Your task to perform on an android device: Open calendar and show me the third week of next month Image 0: 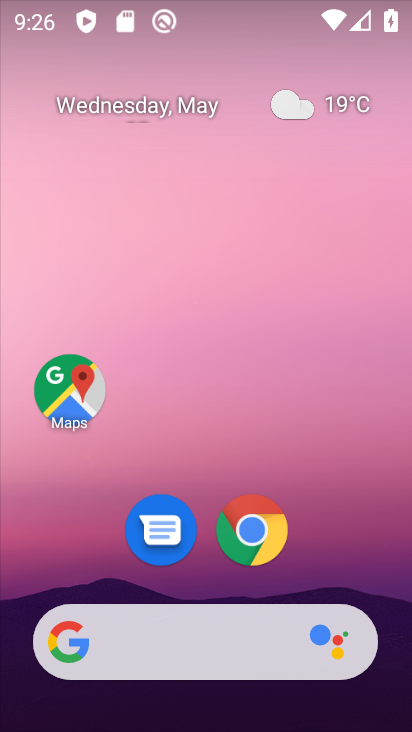
Step 0: drag from (292, 544) to (180, 6)
Your task to perform on an android device: Open calendar and show me the third week of next month Image 1: 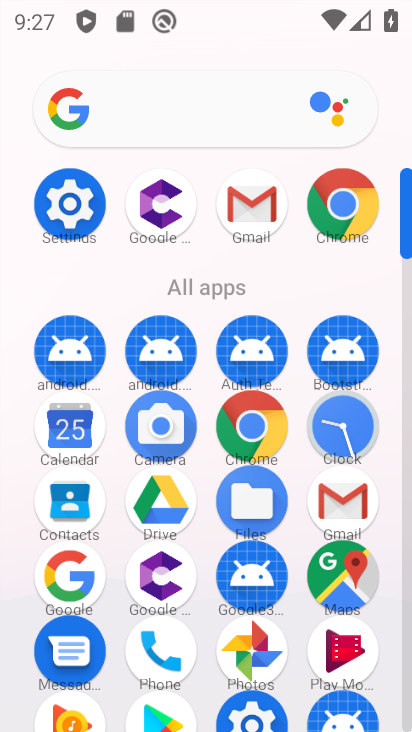
Step 1: click (58, 431)
Your task to perform on an android device: Open calendar and show me the third week of next month Image 2: 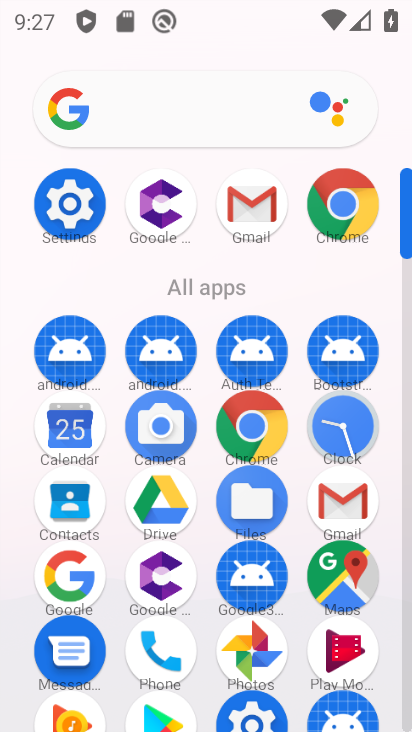
Step 2: click (64, 426)
Your task to perform on an android device: Open calendar and show me the third week of next month Image 3: 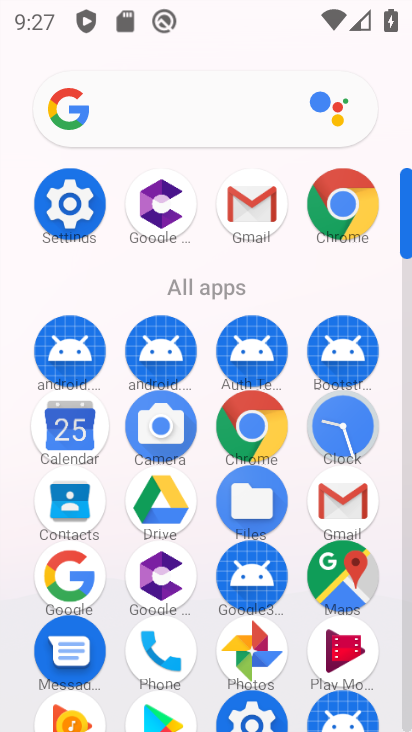
Step 3: click (64, 426)
Your task to perform on an android device: Open calendar and show me the third week of next month Image 4: 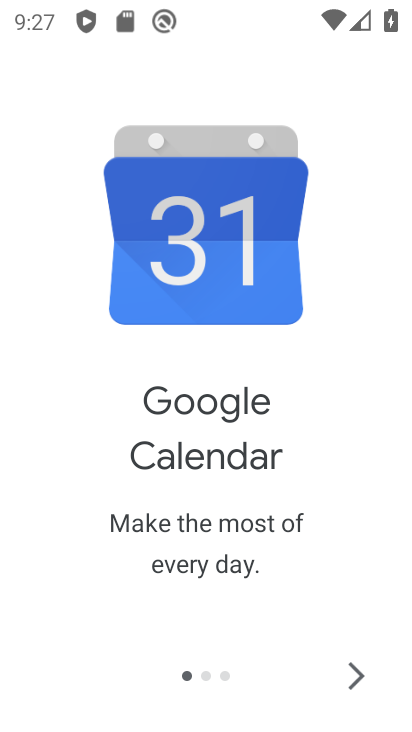
Step 4: click (340, 666)
Your task to perform on an android device: Open calendar and show me the third week of next month Image 5: 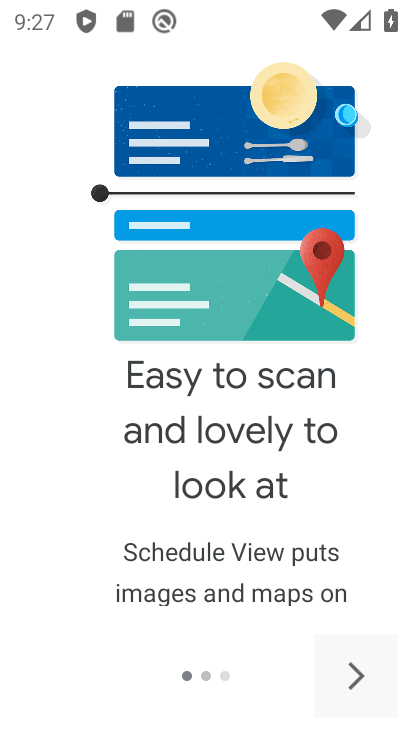
Step 5: click (363, 672)
Your task to perform on an android device: Open calendar and show me the third week of next month Image 6: 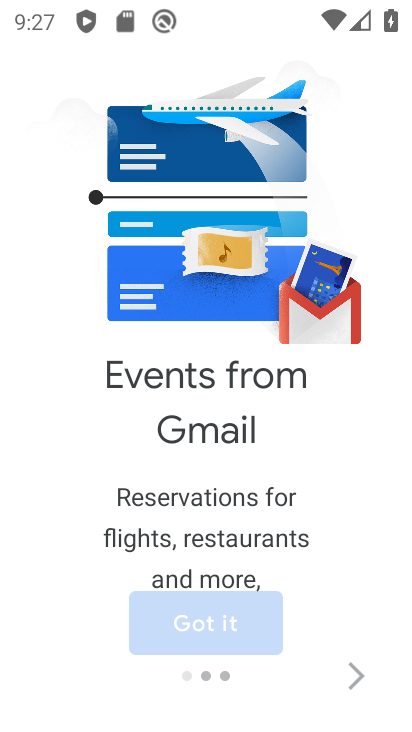
Step 6: click (359, 671)
Your task to perform on an android device: Open calendar and show me the third week of next month Image 7: 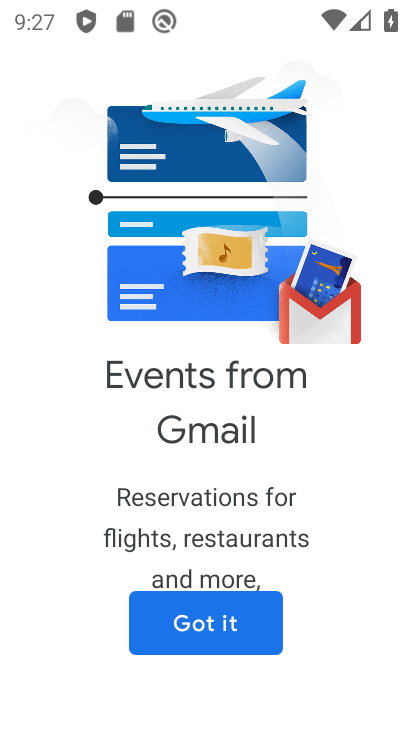
Step 7: click (359, 671)
Your task to perform on an android device: Open calendar and show me the third week of next month Image 8: 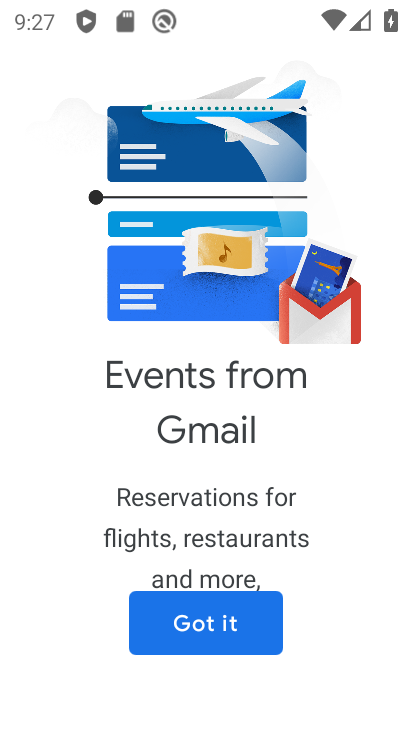
Step 8: click (359, 671)
Your task to perform on an android device: Open calendar and show me the third week of next month Image 9: 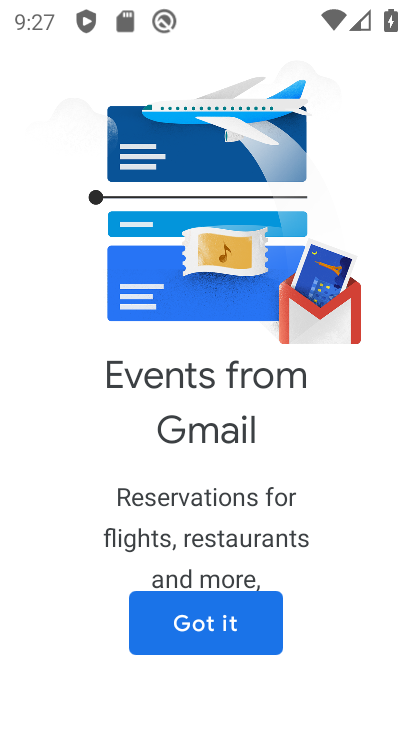
Step 9: click (359, 671)
Your task to perform on an android device: Open calendar and show me the third week of next month Image 10: 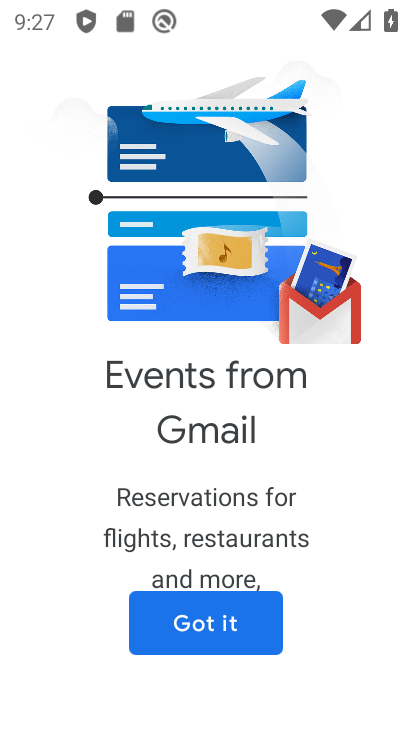
Step 10: click (212, 626)
Your task to perform on an android device: Open calendar and show me the third week of next month Image 11: 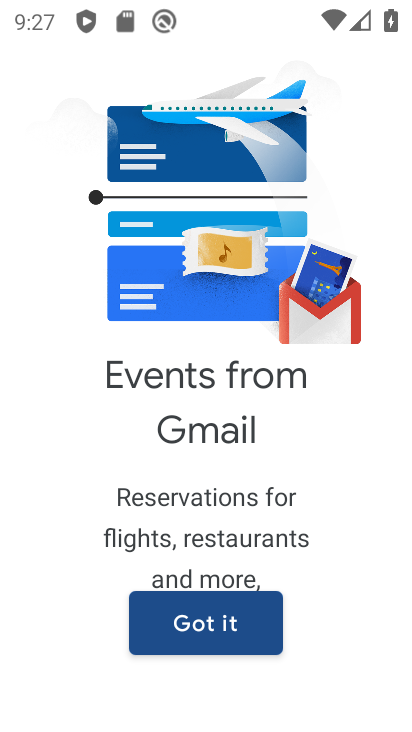
Step 11: click (212, 626)
Your task to perform on an android device: Open calendar and show me the third week of next month Image 12: 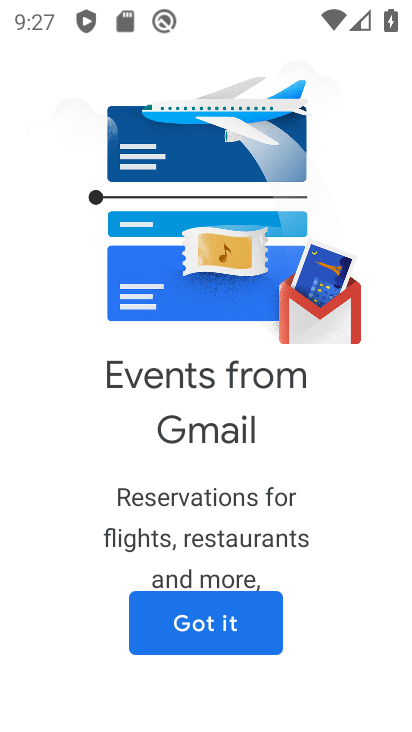
Step 12: click (214, 624)
Your task to perform on an android device: Open calendar and show me the third week of next month Image 13: 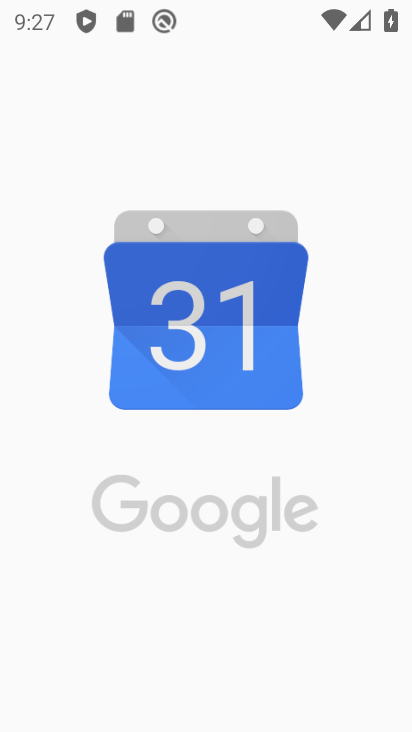
Step 13: click (212, 622)
Your task to perform on an android device: Open calendar and show me the third week of next month Image 14: 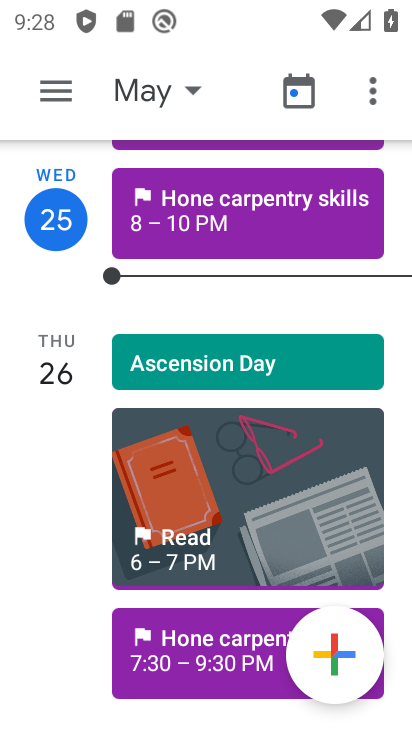
Step 14: press back button
Your task to perform on an android device: Open calendar and show me the third week of next month Image 15: 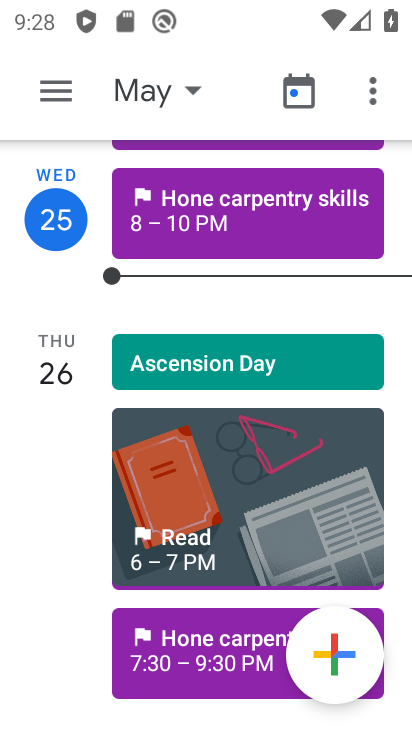
Step 15: press back button
Your task to perform on an android device: Open calendar and show me the third week of next month Image 16: 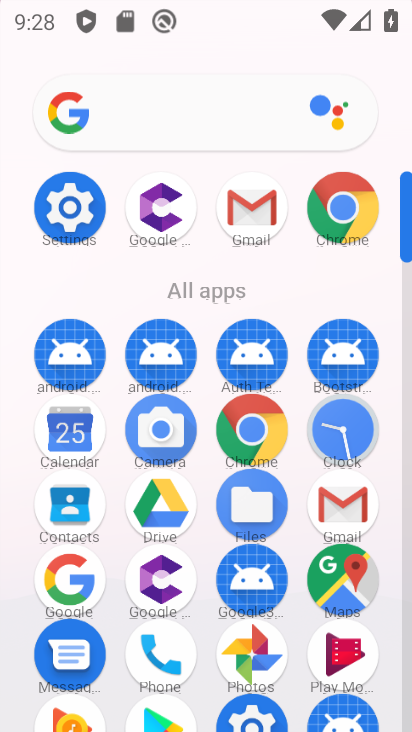
Step 16: press back button
Your task to perform on an android device: Open calendar and show me the third week of next month Image 17: 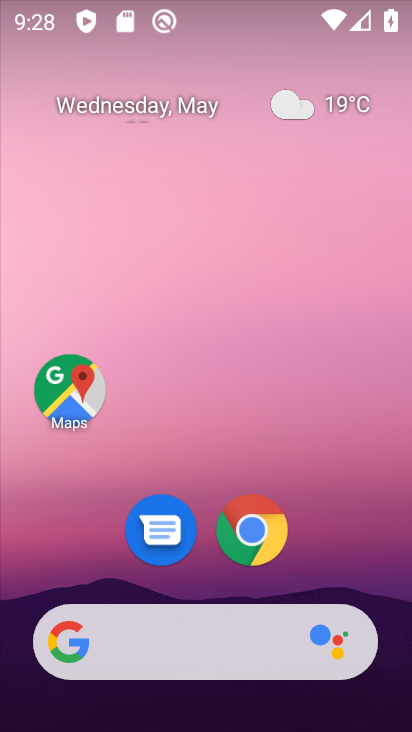
Step 17: drag from (220, 491) to (144, 100)
Your task to perform on an android device: Open calendar and show me the third week of next month Image 18: 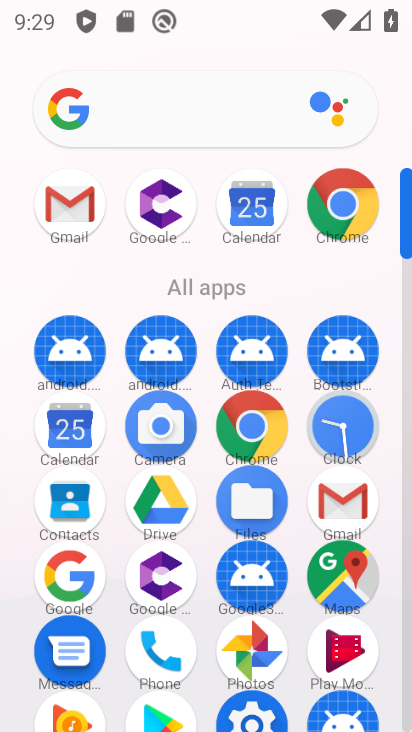
Step 18: click (66, 435)
Your task to perform on an android device: Open calendar and show me the third week of next month Image 19: 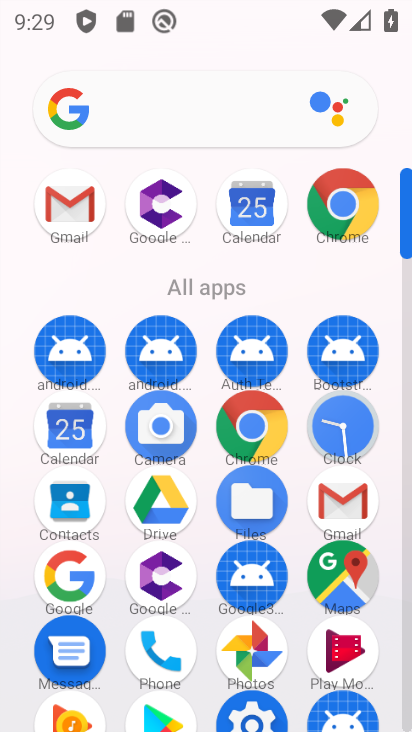
Step 19: click (67, 434)
Your task to perform on an android device: Open calendar and show me the third week of next month Image 20: 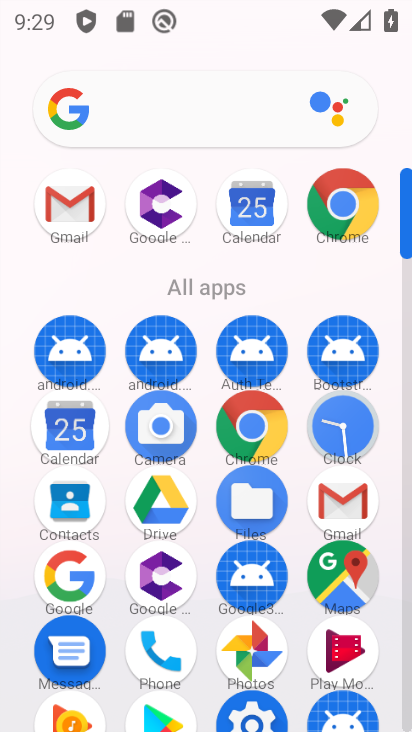
Step 20: click (69, 434)
Your task to perform on an android device: Open calendar and show me the third week of next month Image 21: 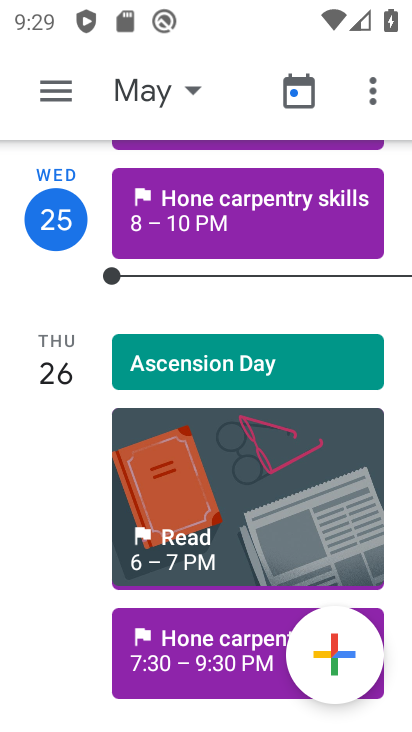
Step 21: press back button
Your task to perform on an android device: Open calendar and show me the third week of next month Image 22: 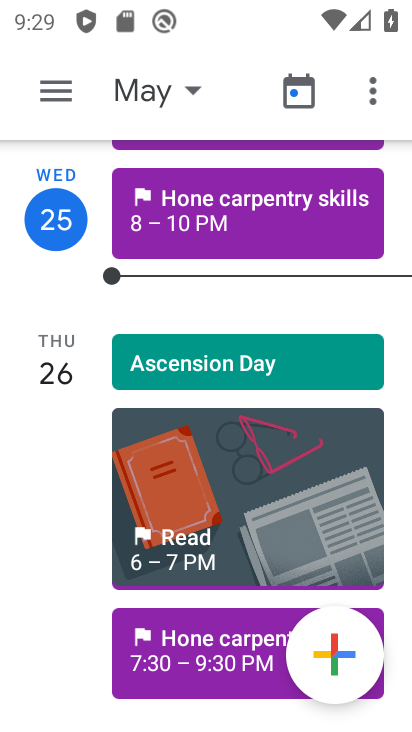
Step 22: press back button
Your task to perform on an android device: Open calendar and show me the third week of next month Image 23: 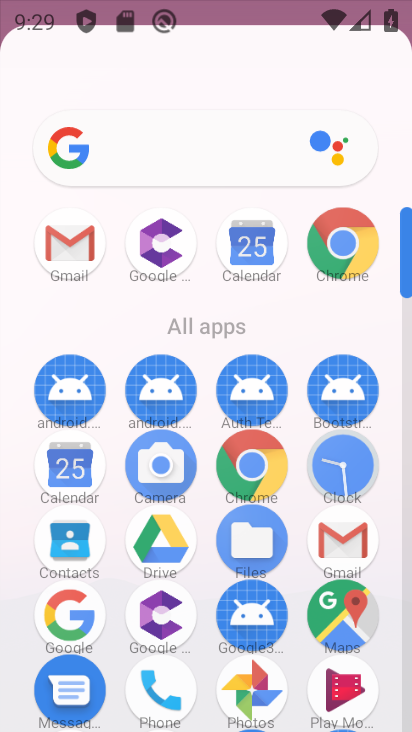
Step 23: press back button
Your task to perform on an android device: Open calendar and show me the third week of next month Image 24: 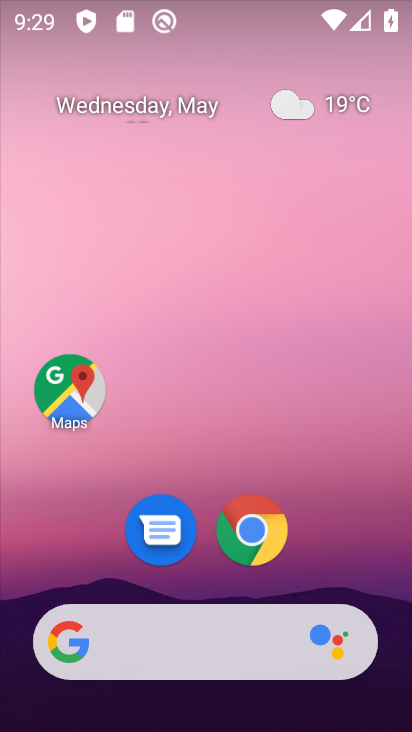
Step 24: drag from (237, 639) to (163, 102)
Your task to perform on an android device: Open calendar and show me the third week of next month Image 25: 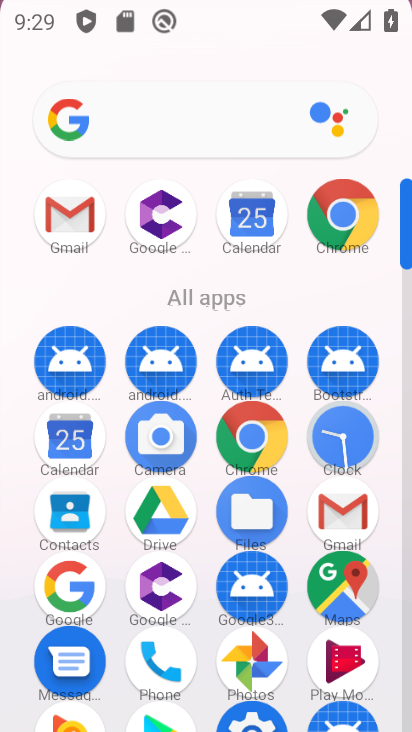
Step 25: drag from (210, 247) to (170, 11)
Your task to perform on an android device: Open calendar and show me the third week of next month Image 26: 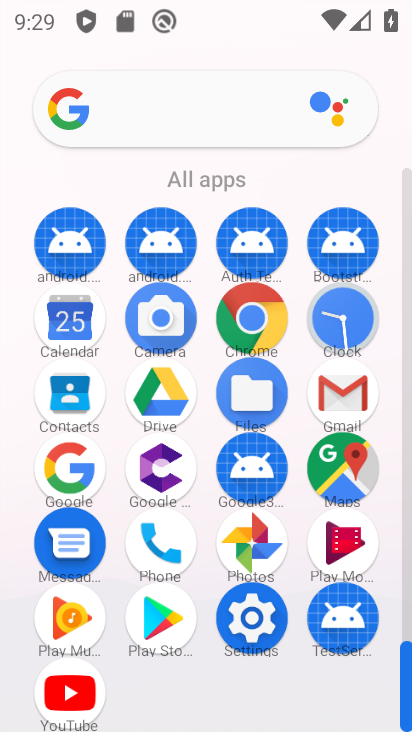
Step 26: drag from (269, 500) to (194, 21)
Your task to perform on an android device: Open calendar and show me the third week of next month Image 27: 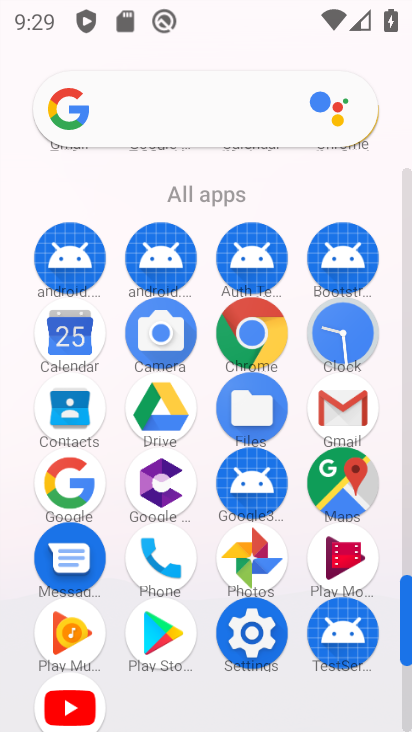
Step 27: click (66, 338)
Your task to perform on an android device: Open calendar and show me the third week of next month Image 28: 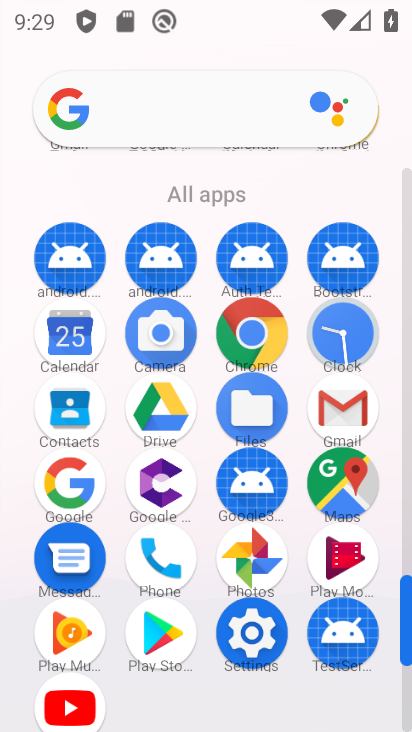
Step 28: click (66, 338)
Your task to perform on an android device: Open calendar and show me the third week of next month Image 29: 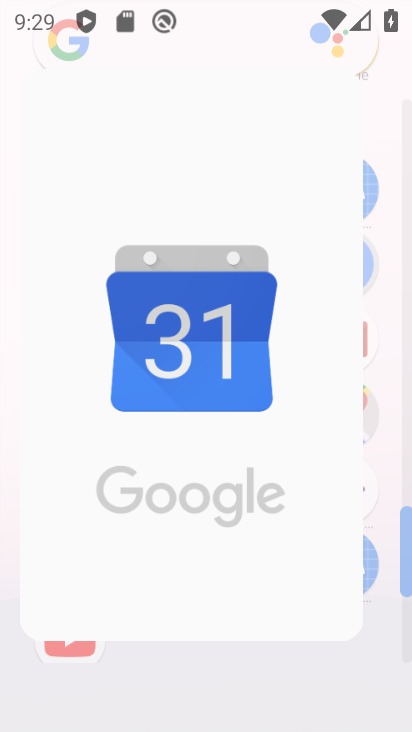
Step 29: click (67, 341)
Your task to perform on an android device: Open calendar and show me the third week of next month Image 30: 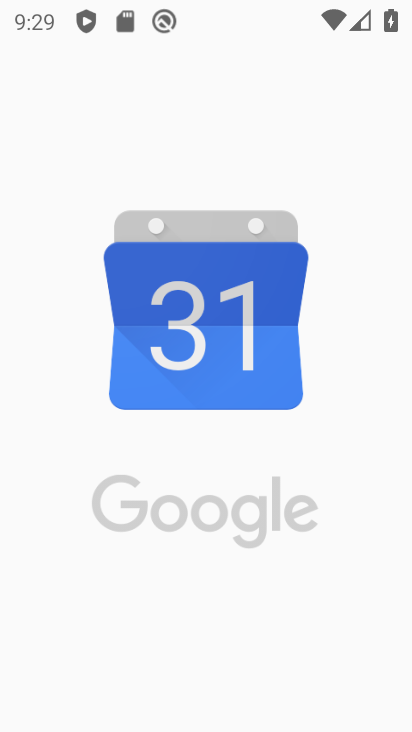
Step 30: click (68, 347)
Your task to perform on an android device: Open calendar and show me the third week of next month Image 31: 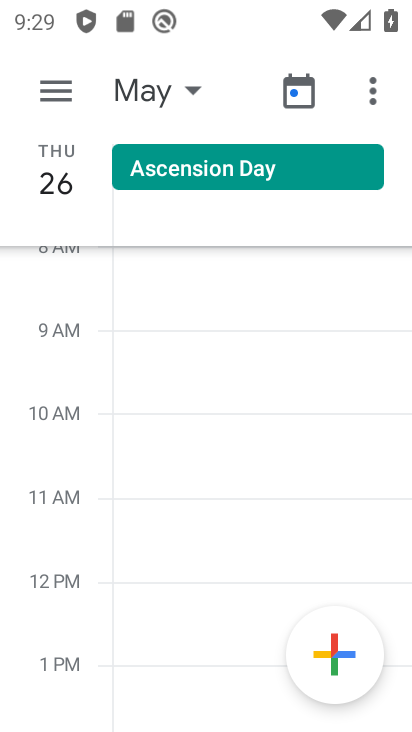
Step 31: press back button
Your task to perform on an android device: Open calendar and show me the third week of next month Image 32: 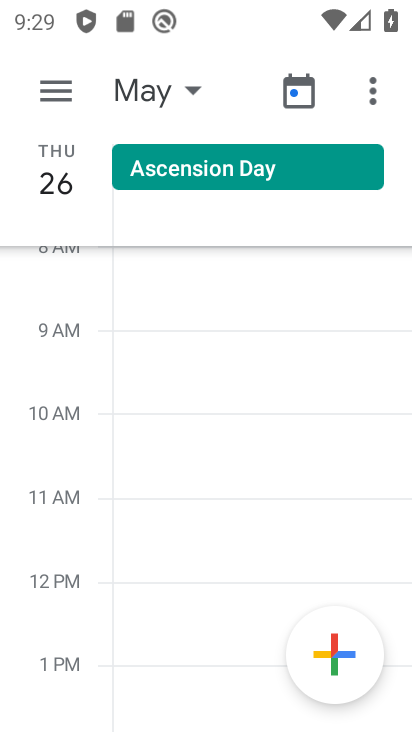
Step 32: press back button
Your task to perform on an android device: Open calendar and show me the third week of next month Image 33: 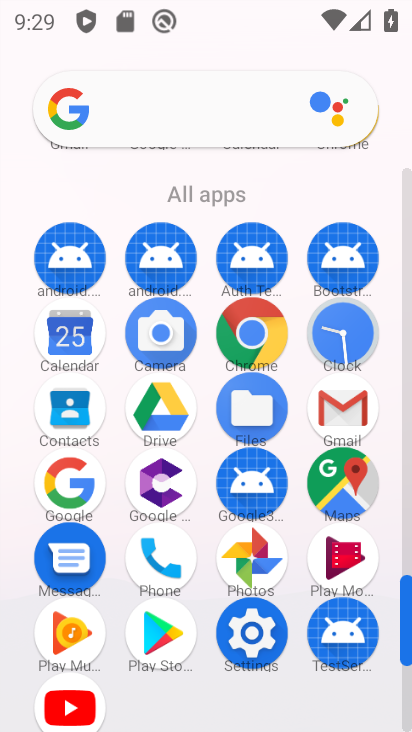
Step 33: press back button
Your task to perform on an android device: Open calendar and show me the third week of next month Image 34: 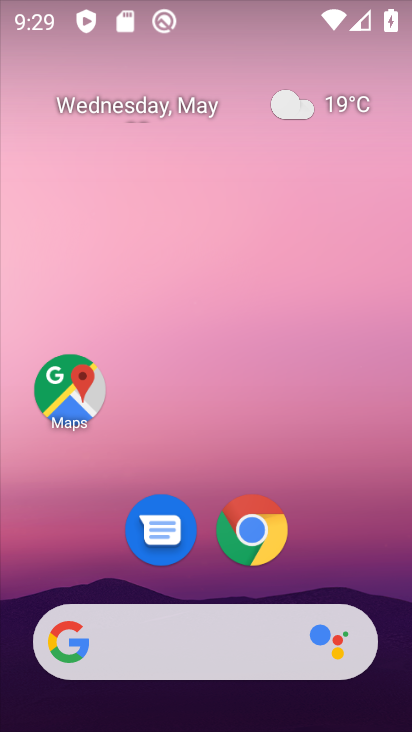
Step 34: drag from (313, 588) to (182, 9)
Your task to perform on an android device: Open calendar and show me the third week of next month Image 35: 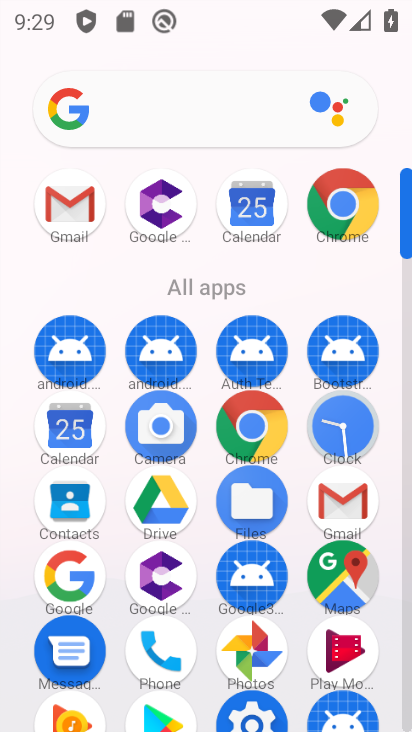
Step 35: drag from (278, 461) to (178, 2)
Your task to perform on an android device: Open calendar and show me the third week of next month Image 36: 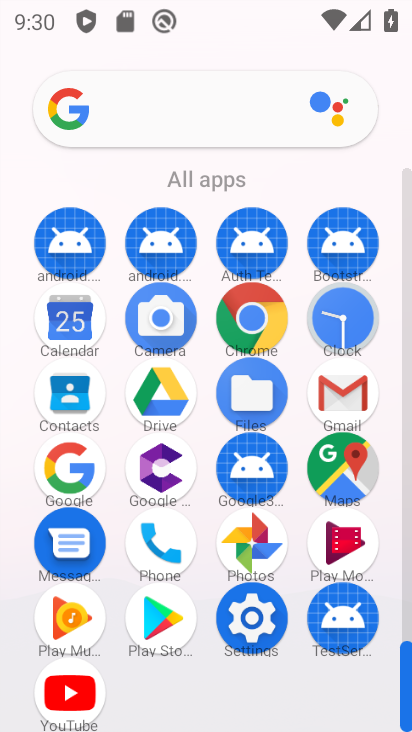
Step 36: click (69, 324)
Your task to perform on an android device: Open calendar and show me the third week of next month Image 37: 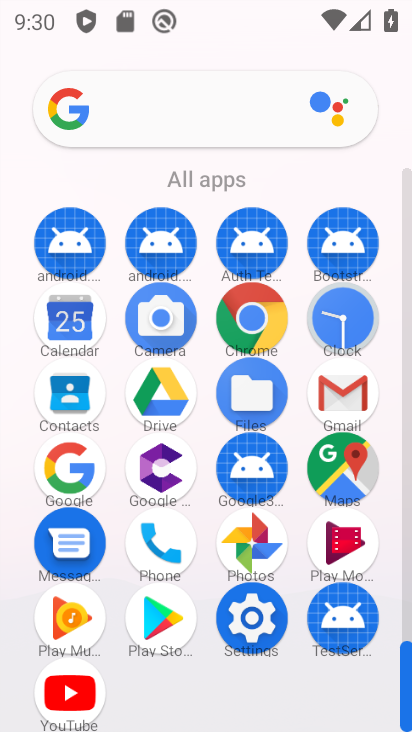
Step 37: click (69, 324)
Your task to perform on an android device: Open calendar and show me the third week of next month Image 38: 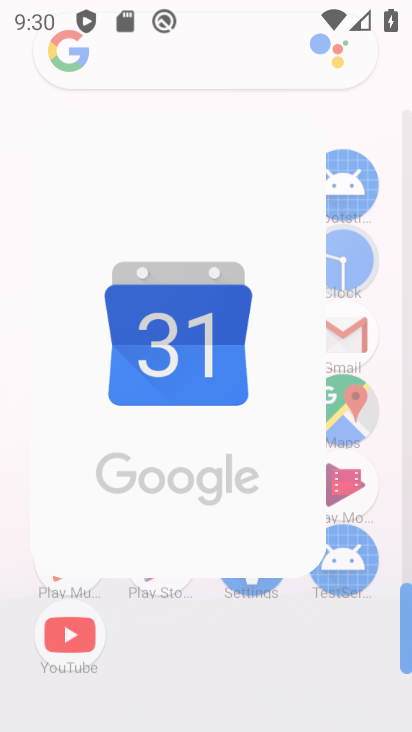
Step 38: click (61, 324)
Your task to perform on an android device: Open calendar and show me the third week of next month Image 39: 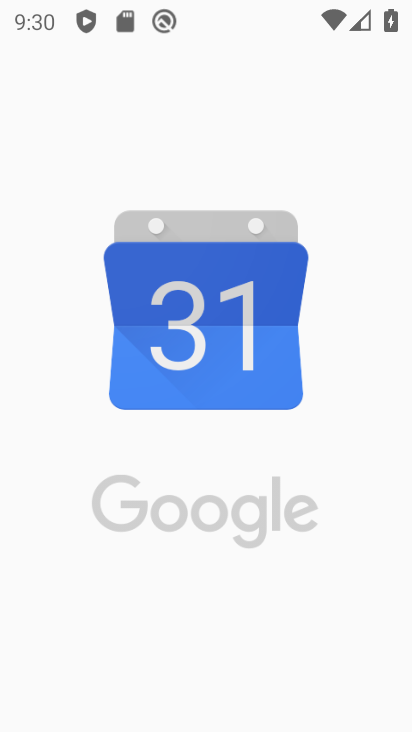
Step 39: click (61, 323)
Your task to perform on an android device: Open calendar and show me the third week of next month Image 40: 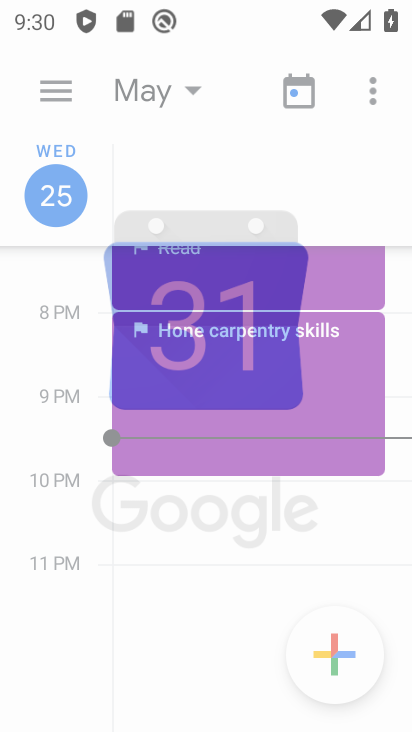
Step 40: click (65, 320)
Your task to perform on an android device: Open calendar and show me the third week of next month Image 41: 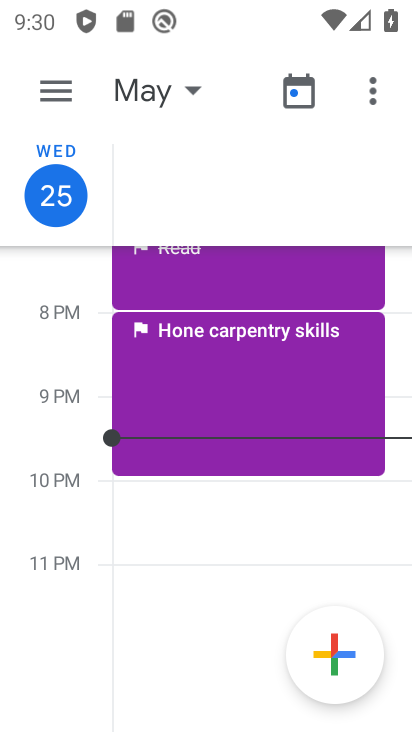
Step 41: click (72, 321)
Your task to perform on an android device: Open calendar and show me the third week of next month Image 42: 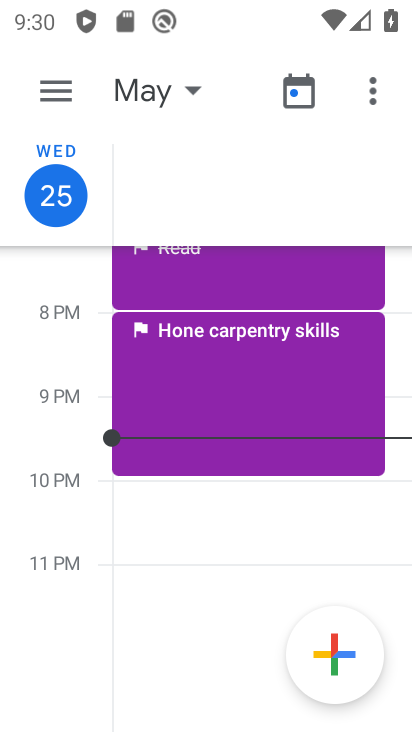
Step 42: click (193, 91)
Your task to perform on an android device: Open calendar and show me the third week of next month Image 43: 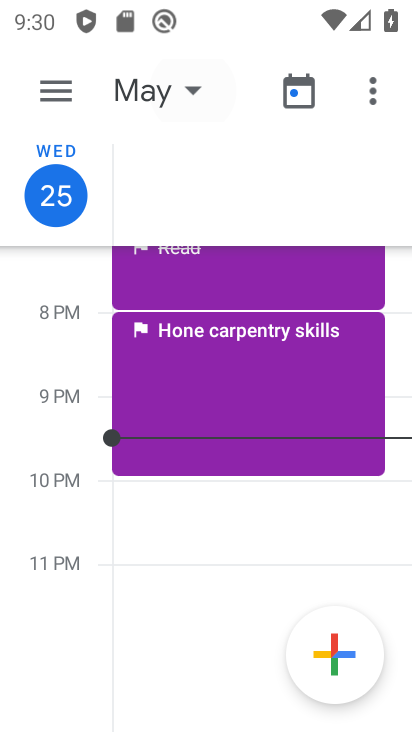
Step 43: click (193, 91)
Your task to perform on an android device: Open calendar and show me the third week of next month Image 44: 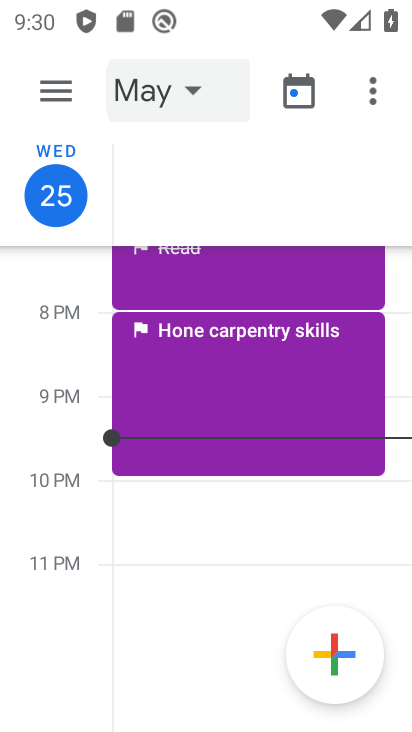
Step 44: click (193, 91)
Your task to perform on an android device: Open calendar and show me the third week of next month Image 45: 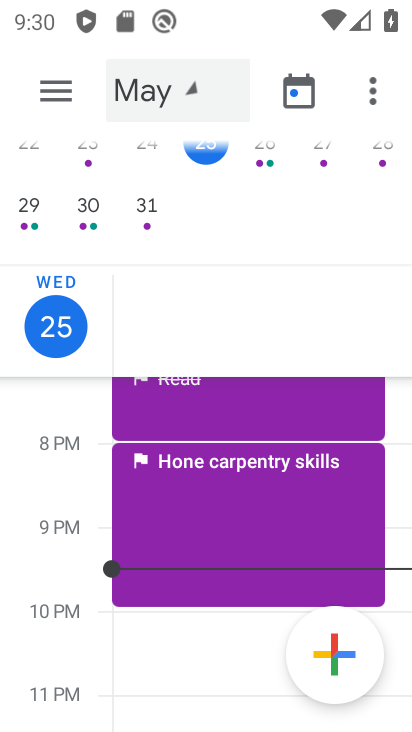
Step 45: click (193, 91)
Your task to perform on an android device: Open calendar and show me the third week of next month Image 46: 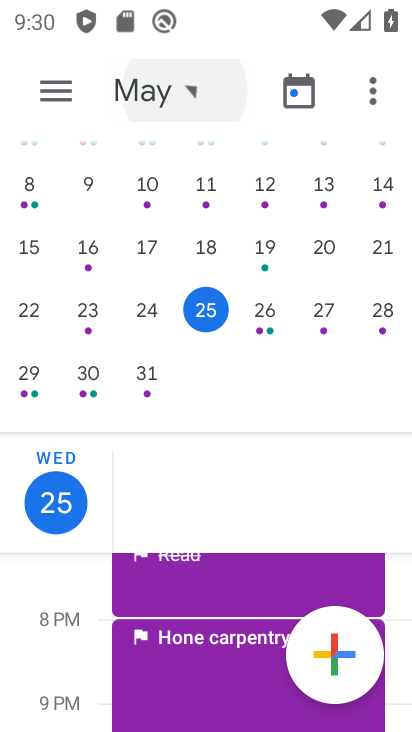
Step 46: click (193, 92)
Your task to perform on an android device: Open calendar and show me the third week of next month Image 47: 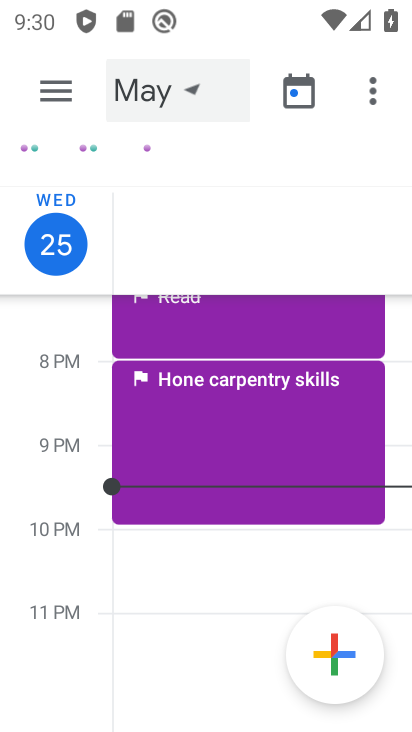
Step 47: click (193, 102)
Your task to perform on an android device: Open calendar and show me the third week of next month Image 48: 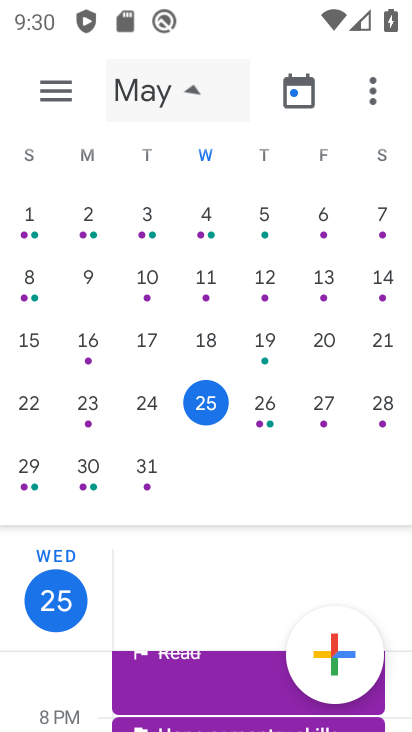
Step 48: click (193, 102)
Your task to perform on an android device: Open calendar and show me the third week of next month Image 49: 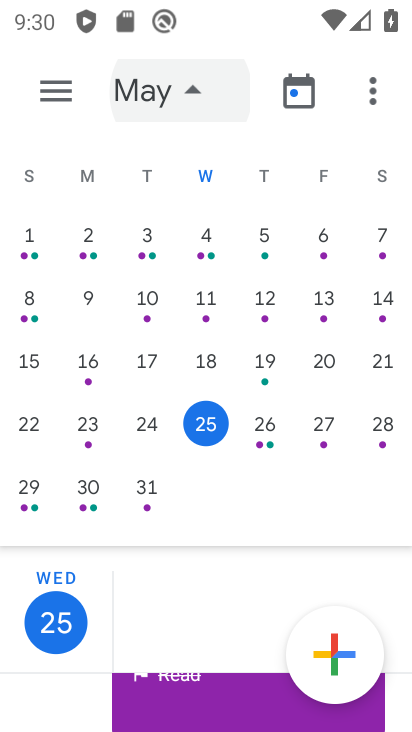
Step 49: click (195, 94)
Your task to perform on an android device: Open calendar and show me the third week of next month Image 50: 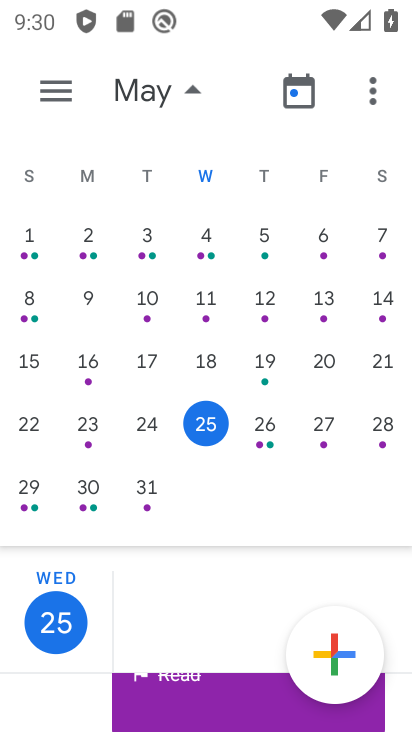
Step 50: click (195, 94)
Your task to perform on an android device: Open calendar and show me the third week of next month Image 51: 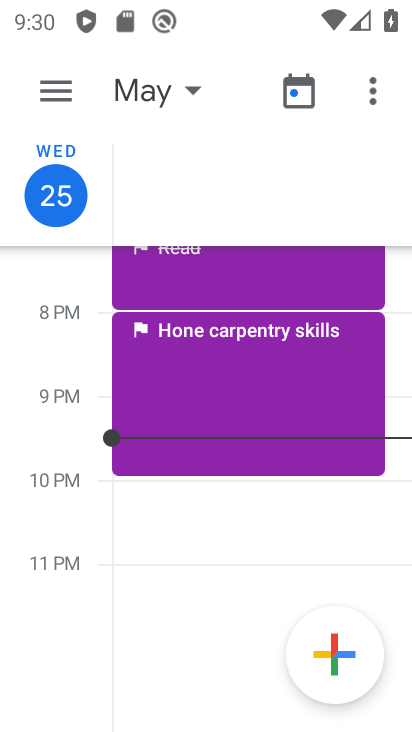
Step 51: click (184, 94)
Your task to perform on an android device: Open calendar and show me the third week of next month Image 52: 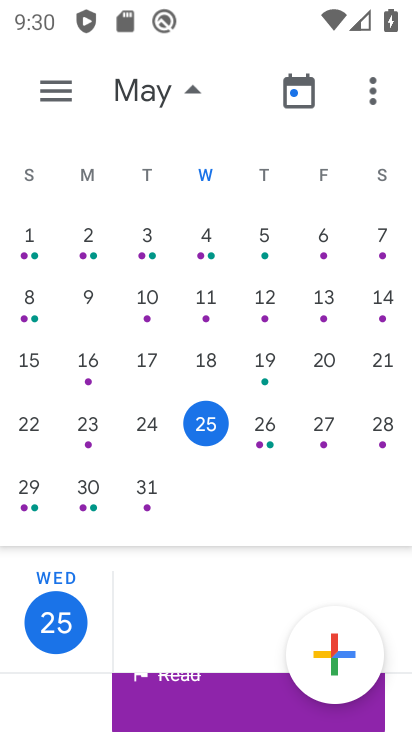
Step 52: drag from (319, 411) to (0, 394)
Your task to perform on an android device: Open calendar and show me the third week of next month Image 53: 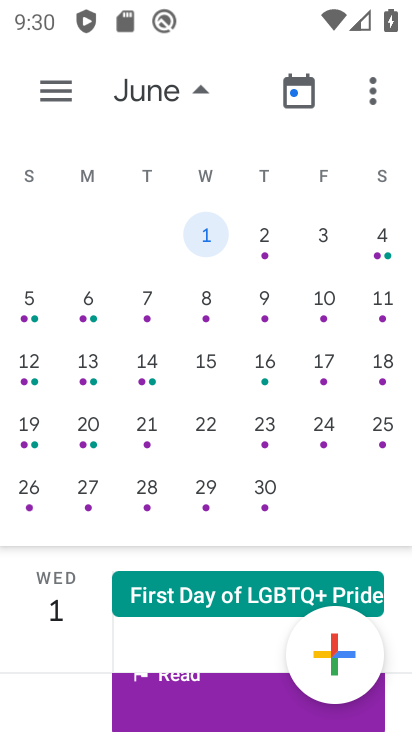
Step 53: drag from (270, 385) to (95, 415)
Your task to perform on an android device: Open calendar and show me the third week of next month Image 54: 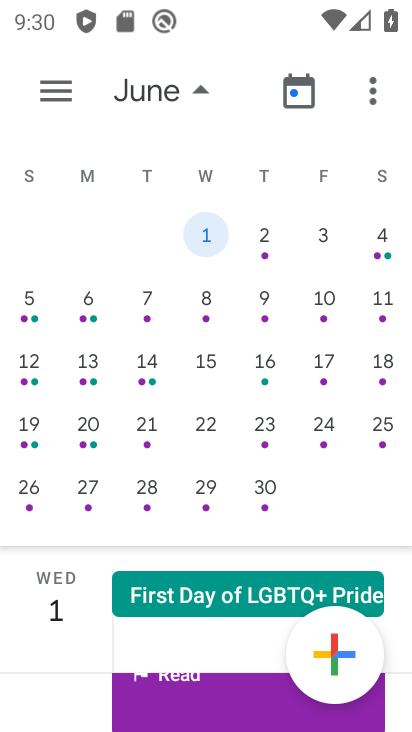
Step 54: click (203, 359)
Your task to perform on an android device: Open calendar and show me the third week of next month Image 55: 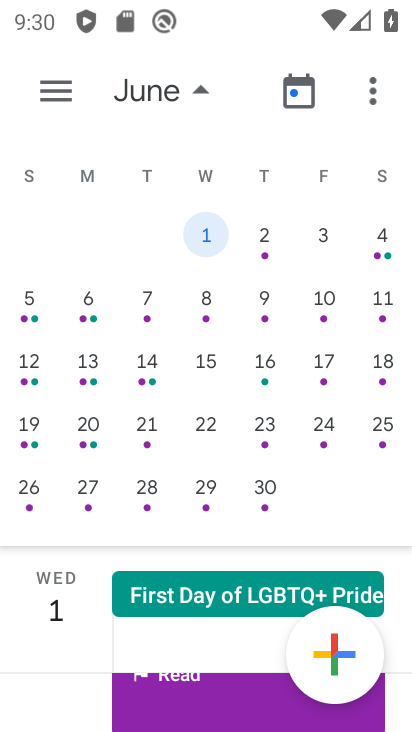
Step 55: click (204, 359)
Your task to perform on an android device: Open calendar and show me the third week of next month Image 56: 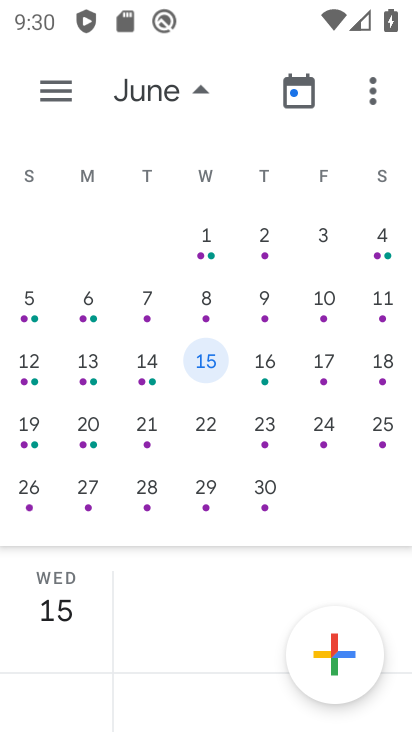
Step 56: click (210, 356)
Your task to perform on an android device: Open calendar and show me the third week of next month Image 57: 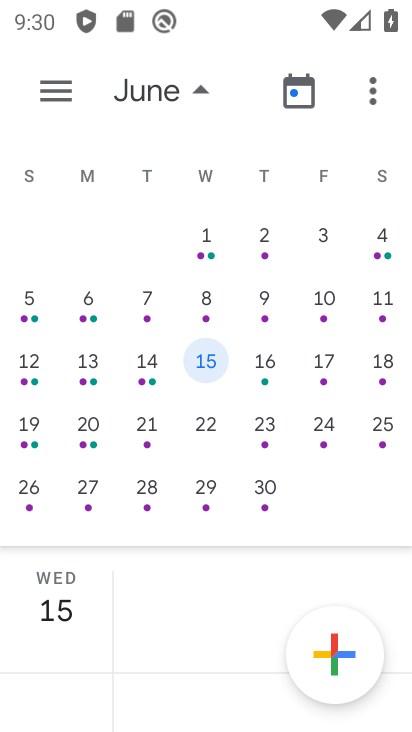
Step 57: task complete